Your task to perform on an android device: Open Chrome and go to the settings page Image 0: 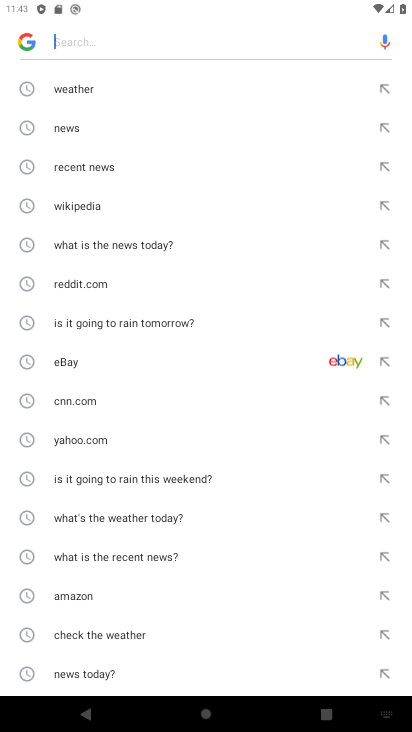
Step 0: press back button
Your task to perform on an android device: Open Chrome and go to the settings page Image 1: 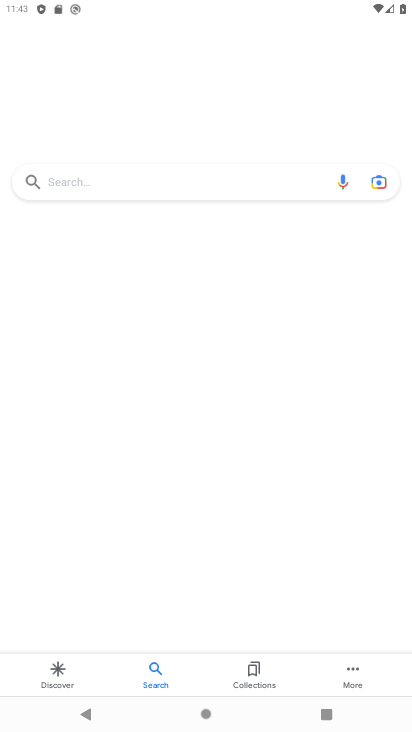
Step 1: press back button
Your task to perform on an android device: Open Chrome and go to the settings page Image 2: 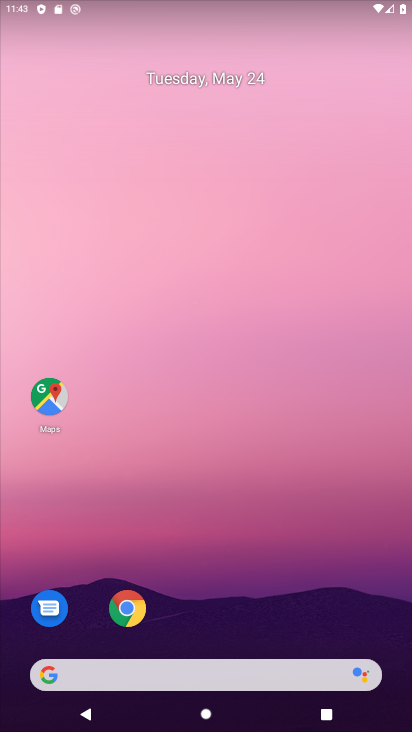
Step 2: click (119, 610)
Your task to perform on an android device: Open Chrome and go to the settings page Image 3: 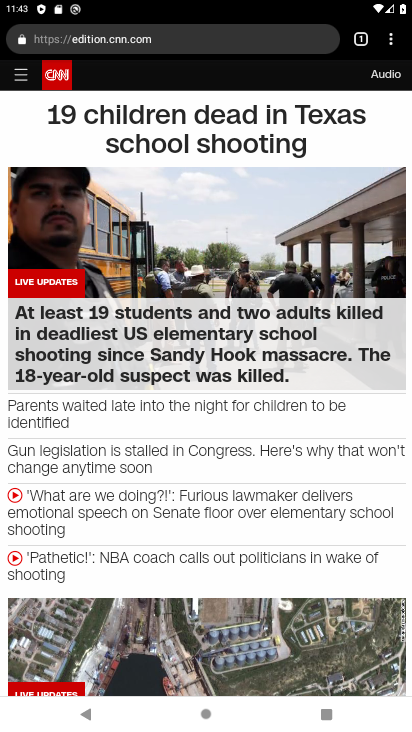
Step 3: task complete